Your task to perform on an android device: Open Chrome and go to settings Image 0: 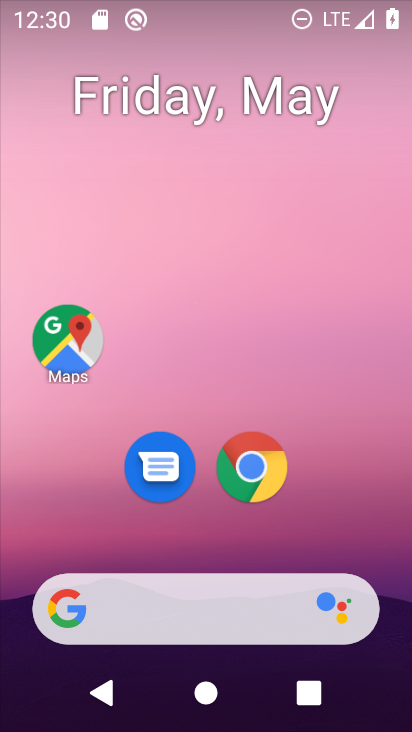
Step 0: drag from (251, 626) to (309, 42)
Your task to perform on an android device: Open Chrome and go to settings Image 1: 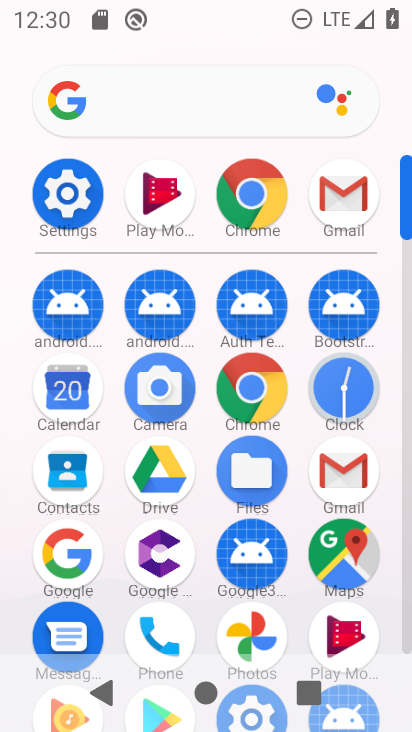
Step 1: click (244, 389)
Your task to perform on an android device: Open Chrome and go to settings Image 2: 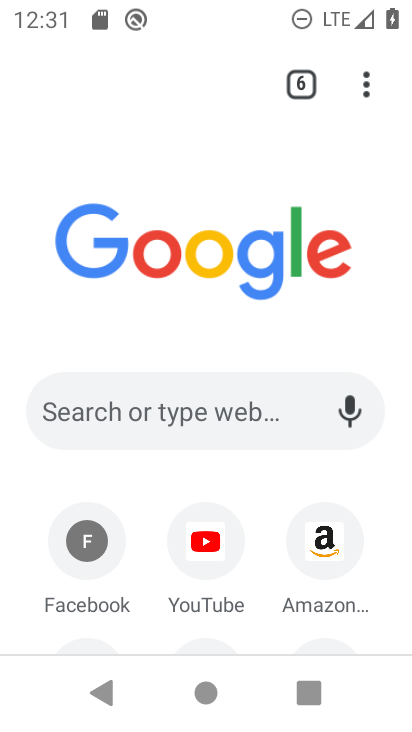
Step 2: click (366, 86)
Your task to perform on an android device: Open Chrome and go to settings Image 3: 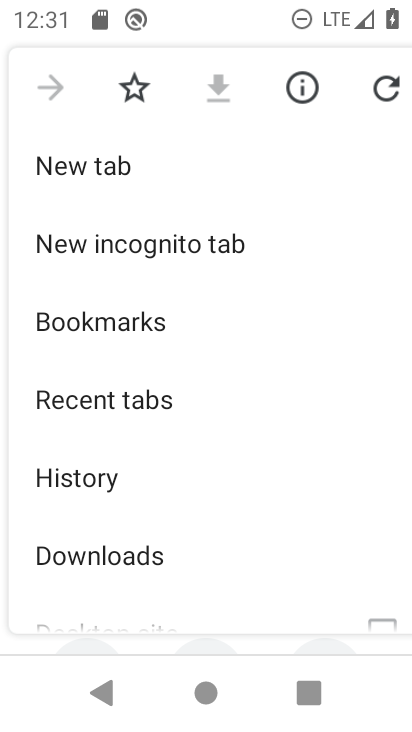
Step 3: drag from (199, 556) to (249, 35)
Your task to perform on an android device: Open Chrome and go to settings Image 4: 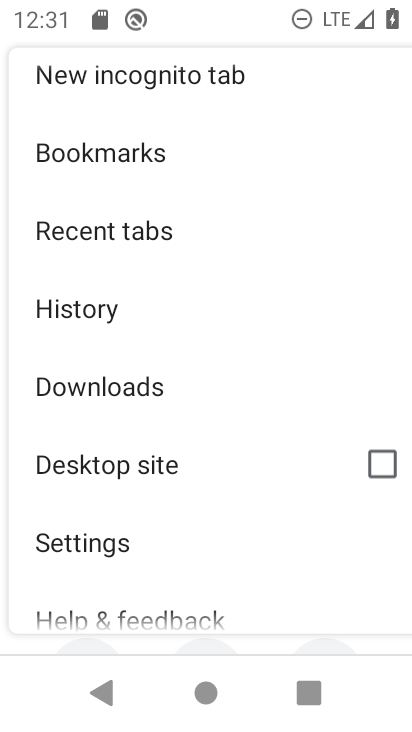
Step 4: click (104, 548)
Your task to perform on an android device: Open Chrome and go to settings Image 5: 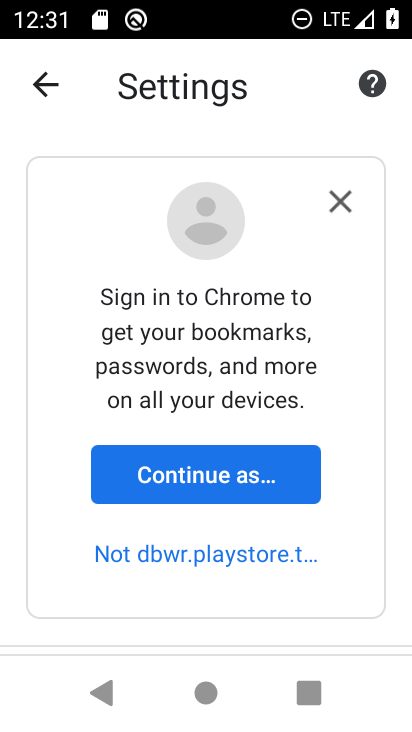
Step 5: task complete